Your task to perform on an android device: toggle translation in the chrome app Image 0: 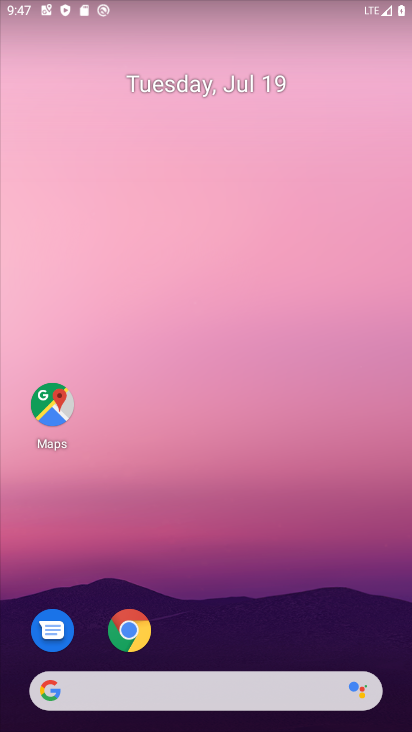
Step 0: click (129, 636)
Your task to perform on an android device: toggle translation in the chrome app Image 1: 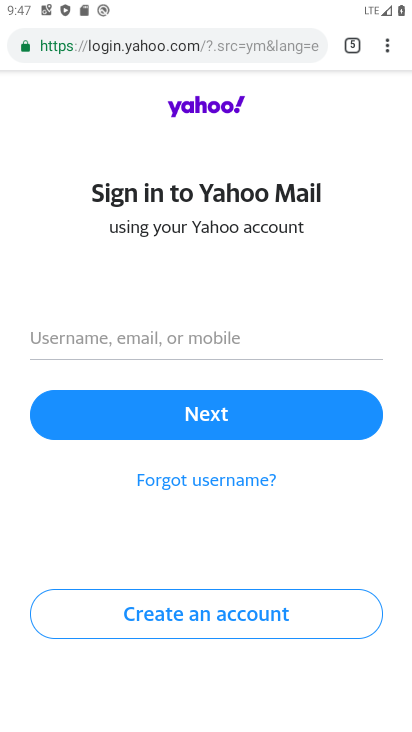
Step 1: click (381, 50)
Your task to perform on an android device: toggle translation in the chrome app Image 2: 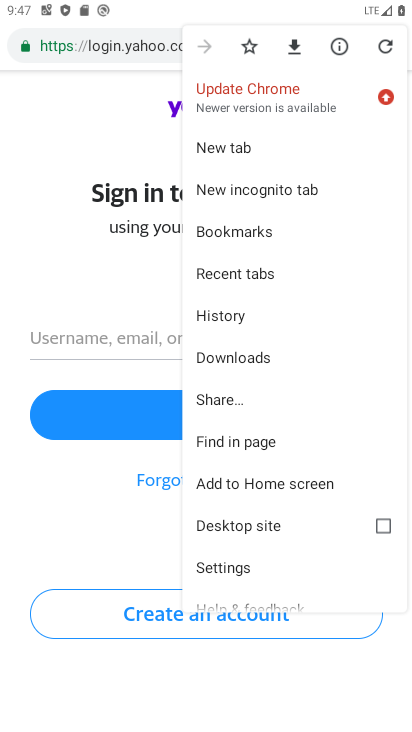
Step 2: click (248, 573)
Your task to perform on an android device: toggle translation in the chrome app Image 3: 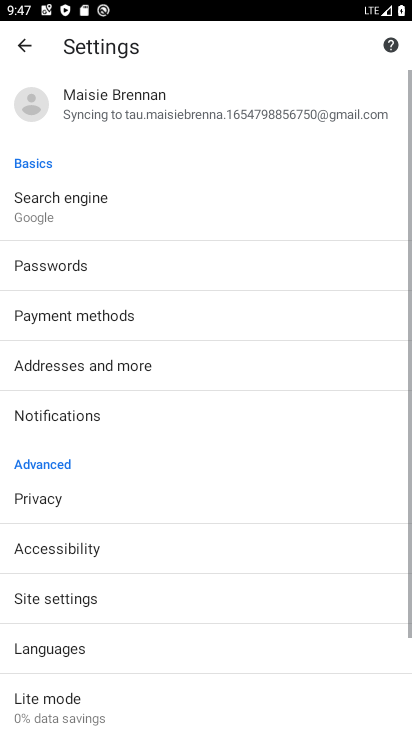
Step 3: click (93, 659)
Your task to perform on an android device: toggle translation in the chrome app Image 4: 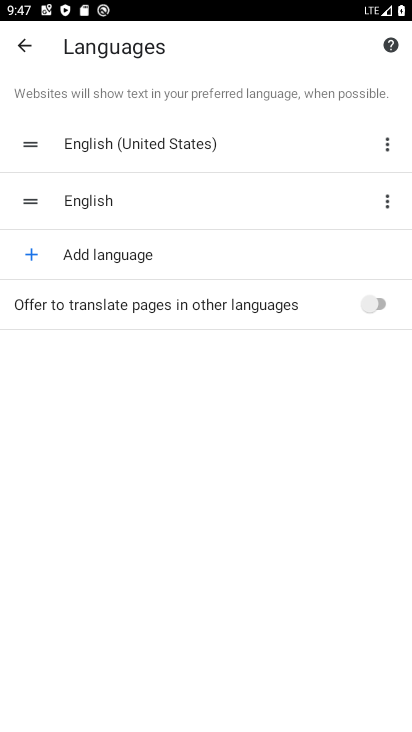
Step 4: click (375, 304)
Your task to perform on an android device: toggle translation in the chrome app Image 5: 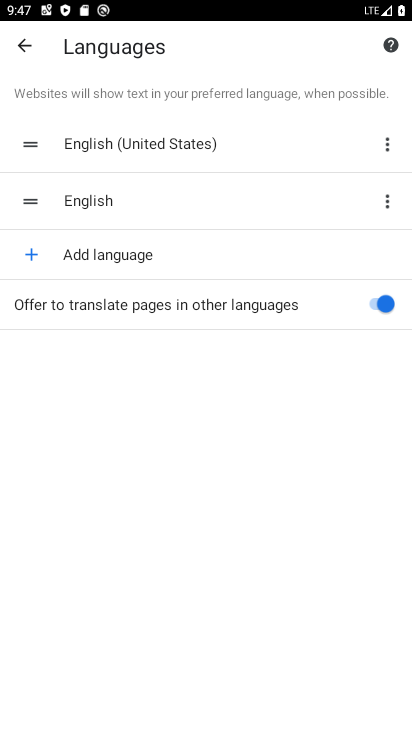
Step 5: task complete